Your task to perform on an android device: Search for the new steph curry shoes on Amazon. Image 0: 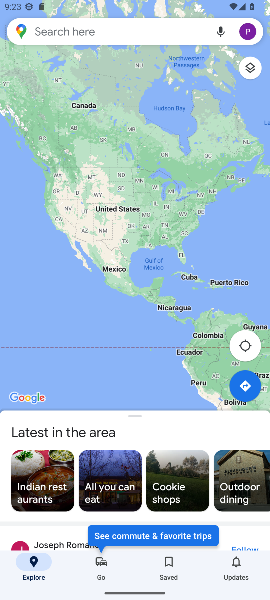
Step 0: press home button
Your task to perform on an android device: Search for the new steph curry shoes on Amazon. Image 1: 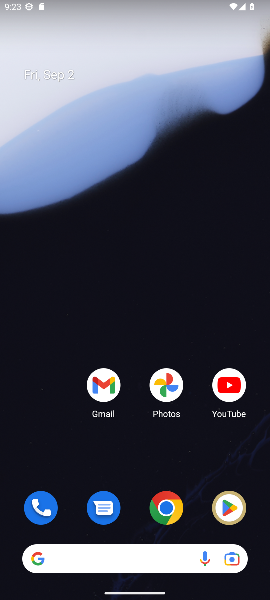
Step 1: click (168, 510)
Your task to perform on an android device: Search for the new steph curry shoes on Amazon. Image 2: 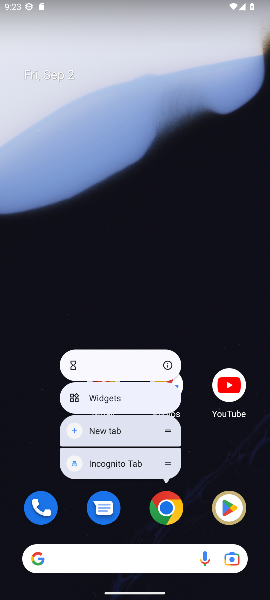
Step 2: click (119, 156)
Your task to perform on an android device: Search for the new steph curry shoes on Amazon. Image 3: 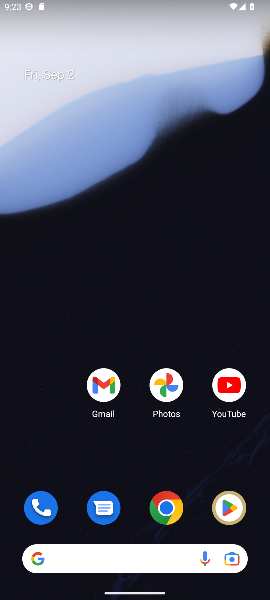
Step 3: click (164, 504)
Your task to perform on an android device: Search for the new steph curry shoes on Amazon. Image 4: 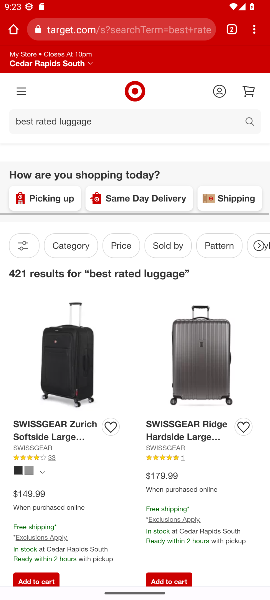
Step 4: click (104, 24)
Your task to perform on an android device: Search for the new steph curry shoes on Amazon. Image 5: 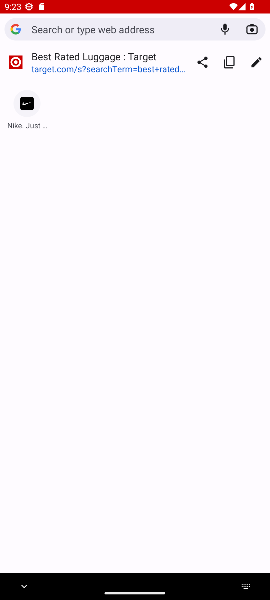
Step 5: press home button
Your task to perform on an android device: Search for the new steph curry shoes on Amazon. Image 6: 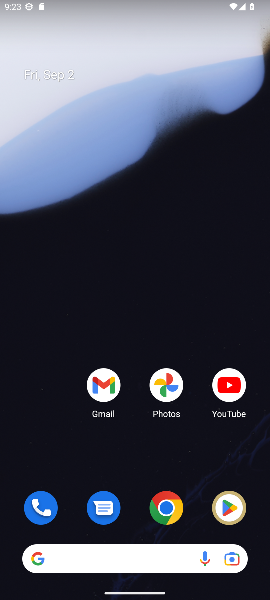
Step 6: click (165, 510)
Your task to perform on an android device: Search for the new steph curry shoes on Amazon. Image 7: 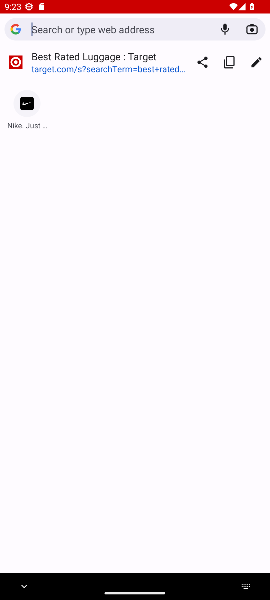
Step 7: click (77, 25)
Your task to perform on an android device: Search for the new steph curry shoes on Amazon. Image 8: 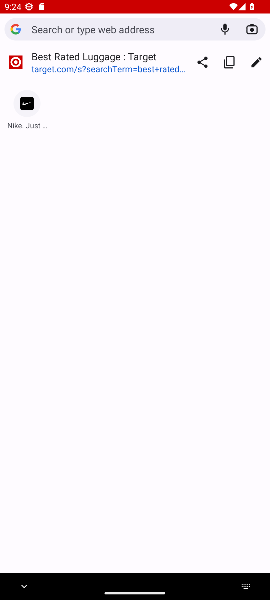
Step 8: type "Amazon"
Your task to perform on an android device: Search for the new steph curry shoes on Amazon. Image 9: 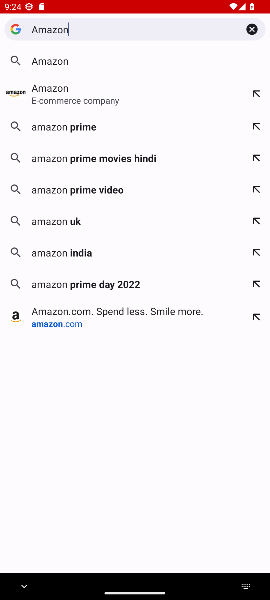
Step 9: click (51, 64)
Your task to perform on an android device: Search for the new steph curry shoes on Amazon. Image 10: 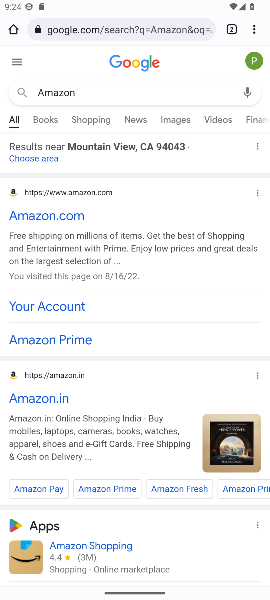
Step 10: click (37, 216)
Your task to perform on an android device: Search for the new steph curry shoes on Amazon. Image 11: 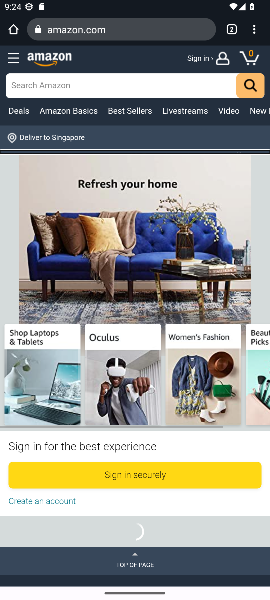
Step 11: click (80, 81)
Your task to perform on an android device: Search for the new steph curry shoes on Amazon. Image 12: 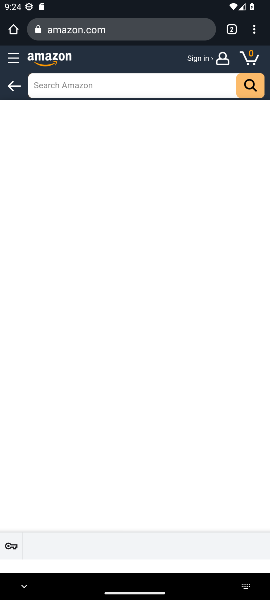
Step 12: click (168, 82)
Your task to perform on an android device: Search for the new steph curry shoes on Amazon. Image 13: 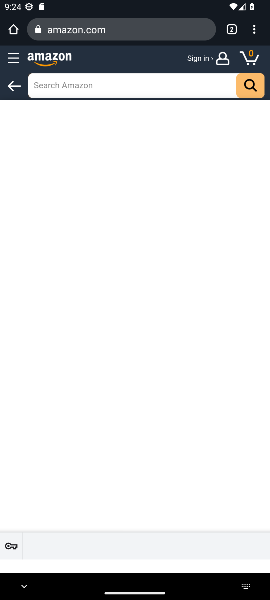
Step 13: click (168, 82)
Your task to perform on an android device: Search for the new steph curry shoes on Amazon. Image 14: 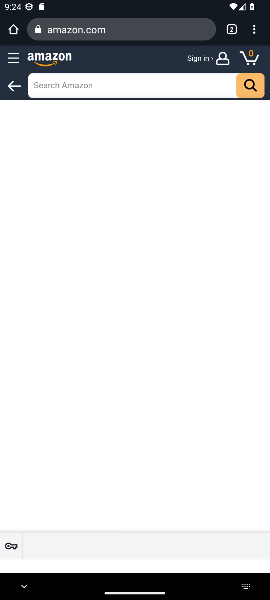
Step 14: click (168, 82)
Your task to perform on an android device: Search for the new steph curry shoes on Amazon. Image 15: 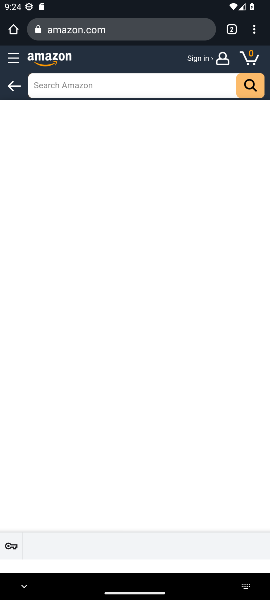
Step 15: click (69, 81)
Your task to perform on an android device: Search for the new steph curry shoes on Amazon. Image 16: 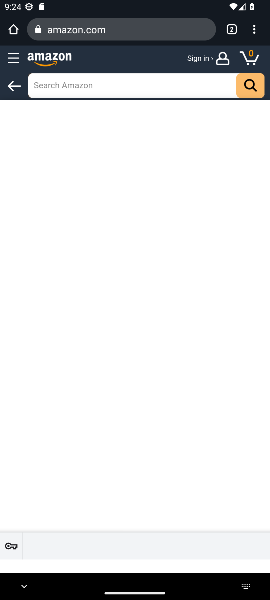
Step 16: click (69, 81)
Your task to perform on an android device: Search for the new steph curry shoes on Amazon. Image 17: 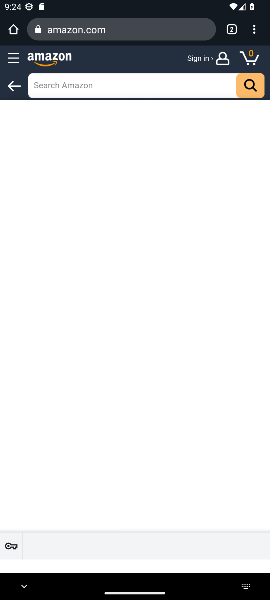
Step 17: click (69, 81)
Your task to perform on an android device: Search for the new steph curry shoes on Amazon. Image 18: 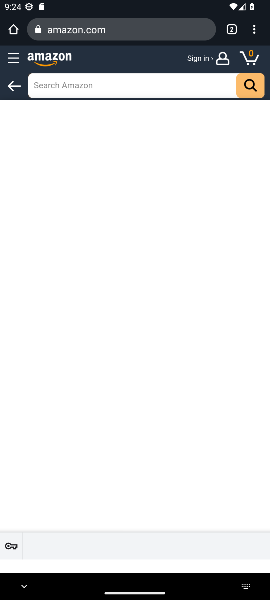
Step 18: click (69, 81)
Your task to perform on an android device: Search for the new steph curry shoes on Amazon. Image 19: 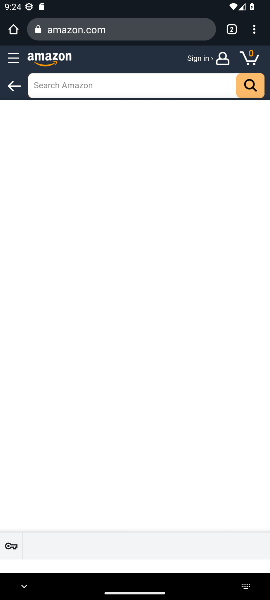
Step 19: click (69, 81)
Your task to perform on an android device: Search for the new steph curry shoes on Amazon. Image 20: 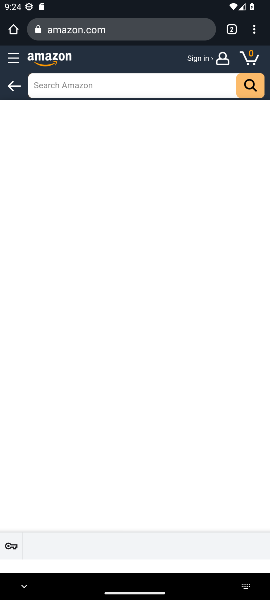
Step 20: click (69, 81)
Your task to perform on an android device: Search for the new steph curry shoes on Amazon. Image 21: 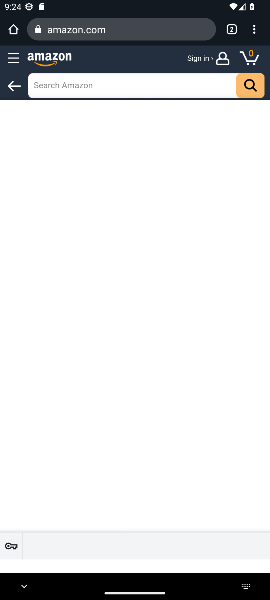
Step 21: click (75, 89)
Your task to perform on an android device: Search for the new steph curry shoes on Amazon. Image 22: 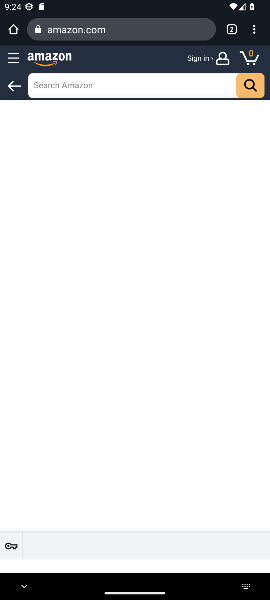
Step 22: click (75, 89)
Your task to perform on an android device: Search for the new steph curry shoes on Amazon. Image 23: 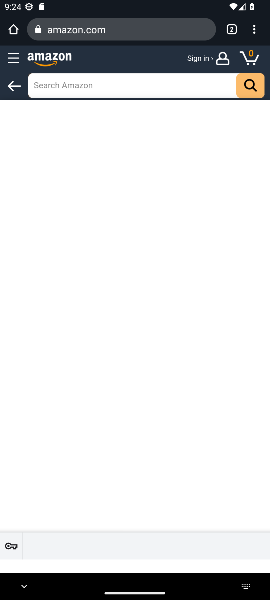
Step 23: click (75, 89)
Your task to perform on an android device: Search for the new steph curry shoes on Amazon. Image 24: 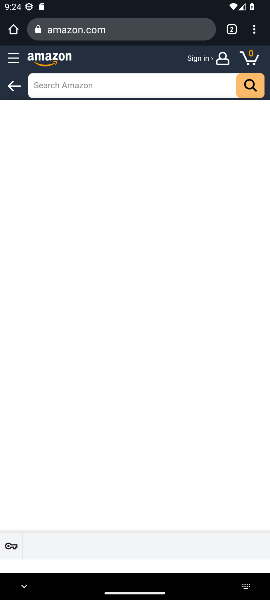
Step 24: click (75, 89)
Your task to perform on an android device: Search for the new steph curry shoes on Amazon. Image 25: 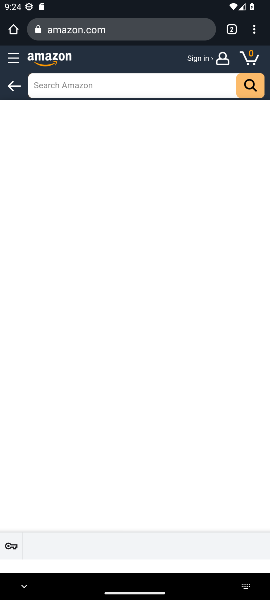
Step 25: click (75, 89)
Your task to perform on an android device: Search for the new steph curry shoes on Amazon. Image 26: 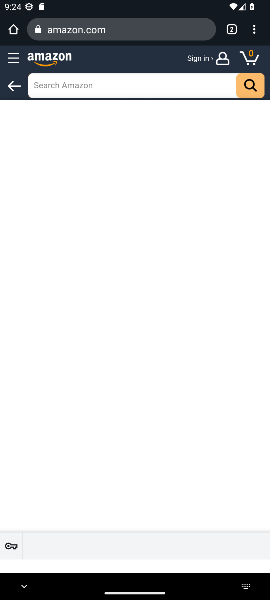
Step 26: click (13, 84)
Your task to perform on an android device: Search for the new steph curry shoes on Amazon. Image 27: 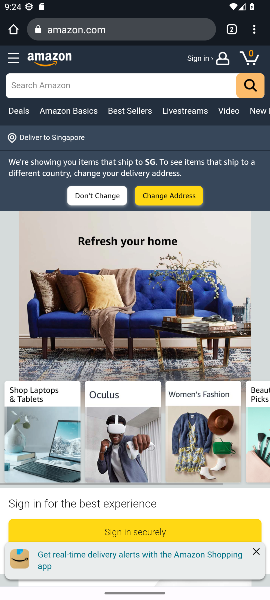
Step 27: click (38, 82)
Your task to perform on an android device: Search for the new steph curry shoes on Amazon. Image 28: 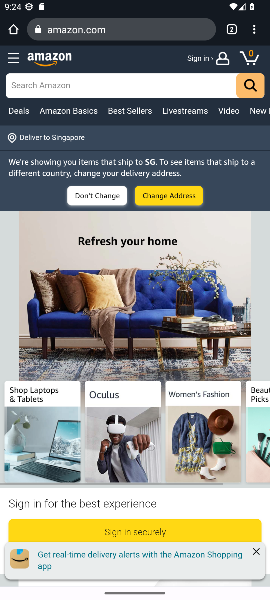
Step 28: click (38, 82)
Your task to perform on an android device: Search for the new steph curry shoes on Amazon. Image 29: 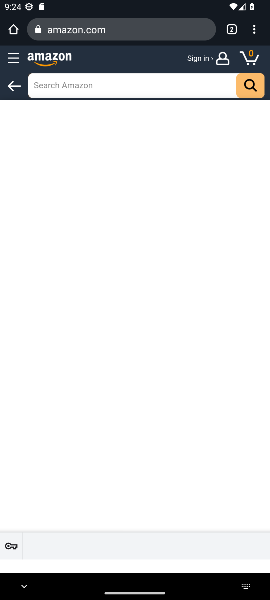
Step 29: click (61, 82)
Your task to perform on an android device: Search for the new steph curry shoes on Amazon. Image 30: 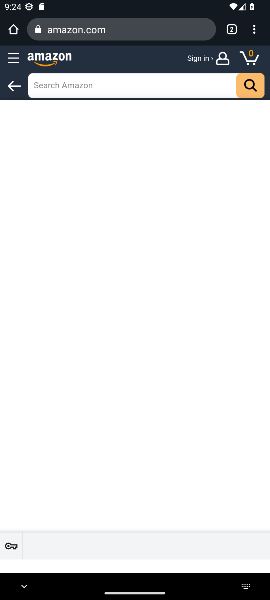
Step 30: click (61, 82)
Your task to perform on an android device: Search for the new steph curry shoes on Amazon. Image 31: 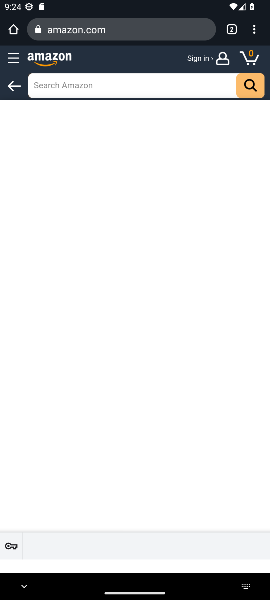
Step 31: click (61, 82)
Your task to perform on an android device: Search for the new steph curry shoes on Amazon. Image 32: 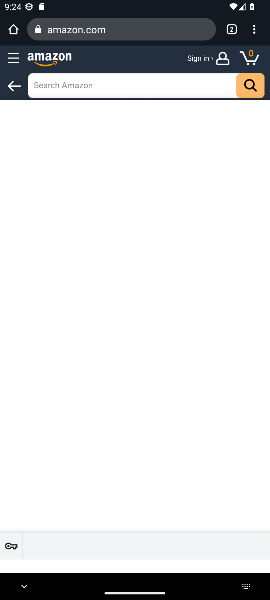
Step 32: click (61, 82)
Your task to perform on an android device: Search for the new steph curry shoes on Amazon. Image 33: 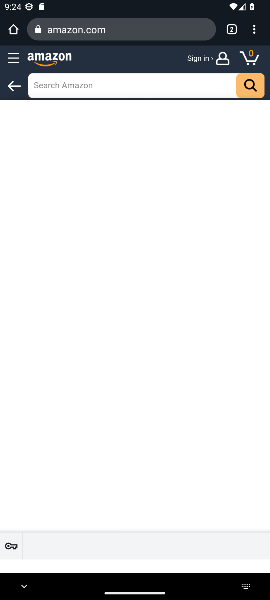
Step 33: click (168, 88)
Your task to perform on an android device: Search for the new steph curry shoes on Amazon. Image 34: 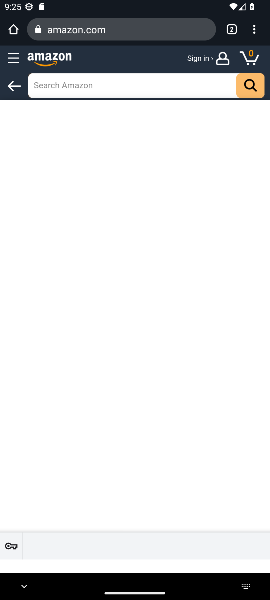
Step 34: type "new steph curry shoes"
Your task to perform on an android device: Search for the new steph curry shoes on Amazon. Image 35: 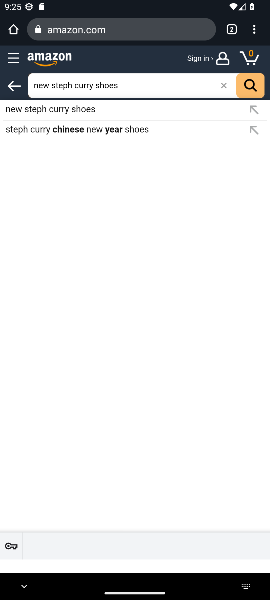
Step 35: click (23, 106)
Your task to perform on an android device: Search for the new steph curry shoes on Amazon. Image 36: 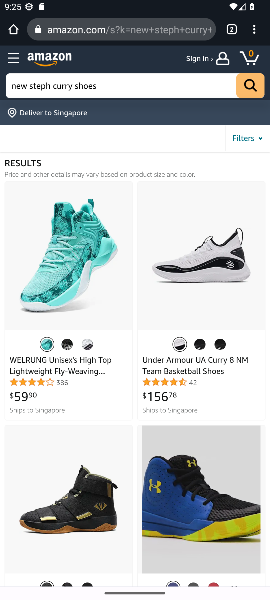
Step 36: task complete